Your task to perform on an android device: Search for seafood restaurants on Google Maps Image 0: 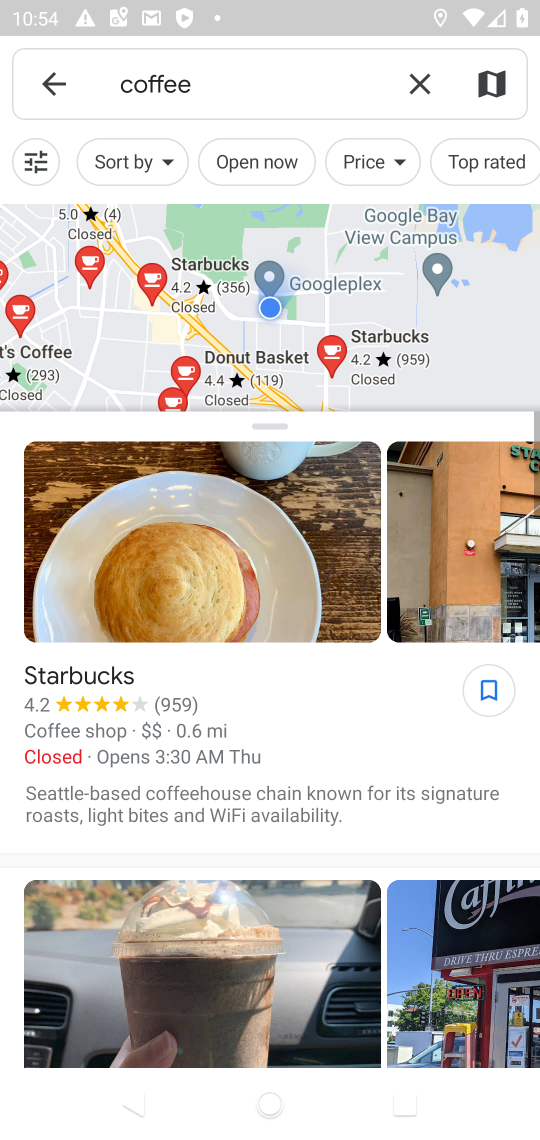
Step 0: press home button
Your task to perform on an android device: Search for seafood restaurants on Google Maps Image 1: 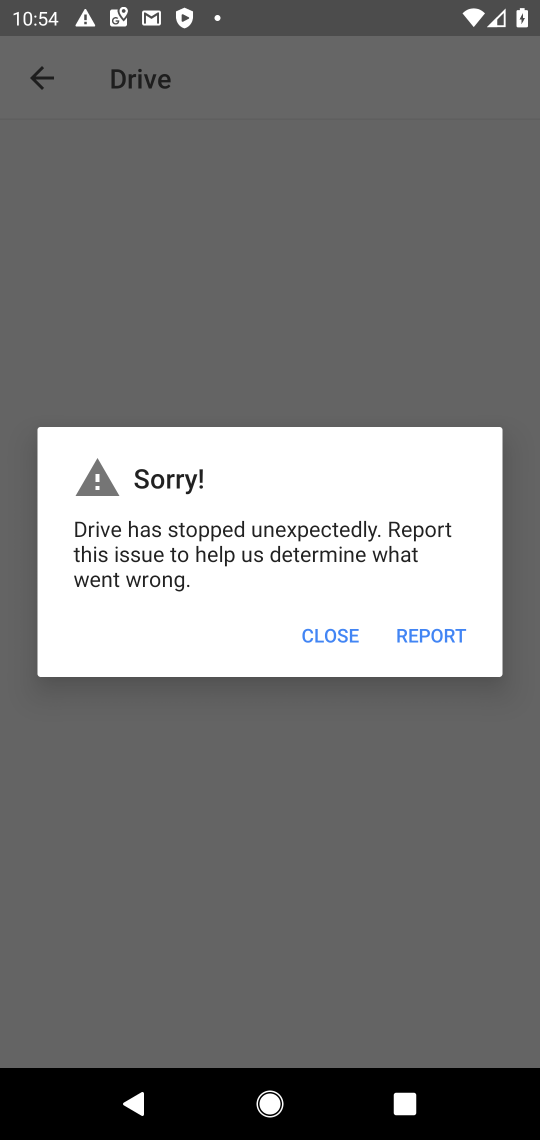
Step 1: press home button
Your task to perform on an android device: Search for seafood restaurants on Google Maps Image 2: 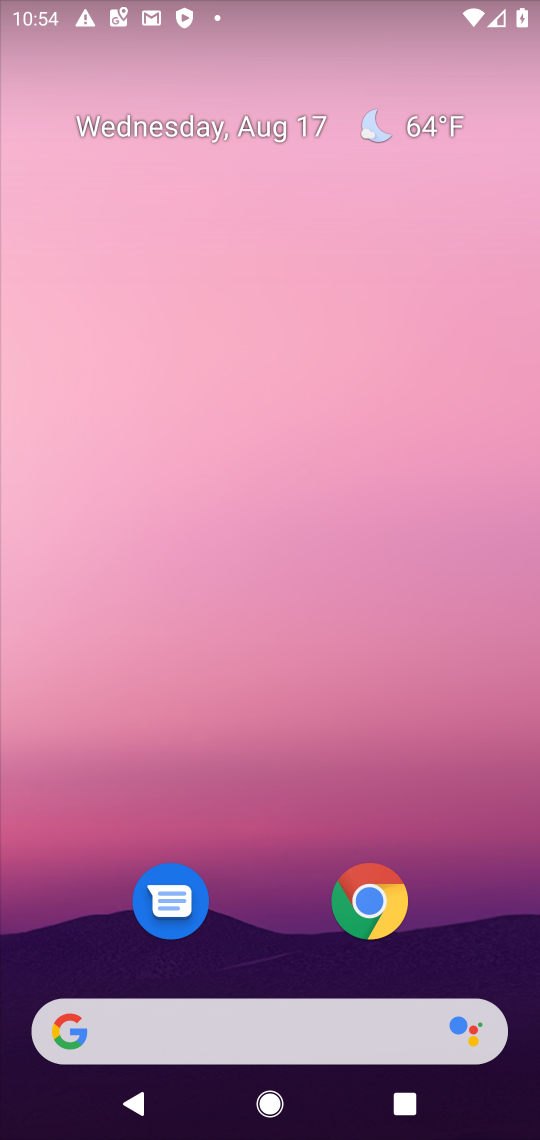
Step 2: press home button
Your task to perform on an android device: Search for seafood restaurants on Google Maps Image 3: 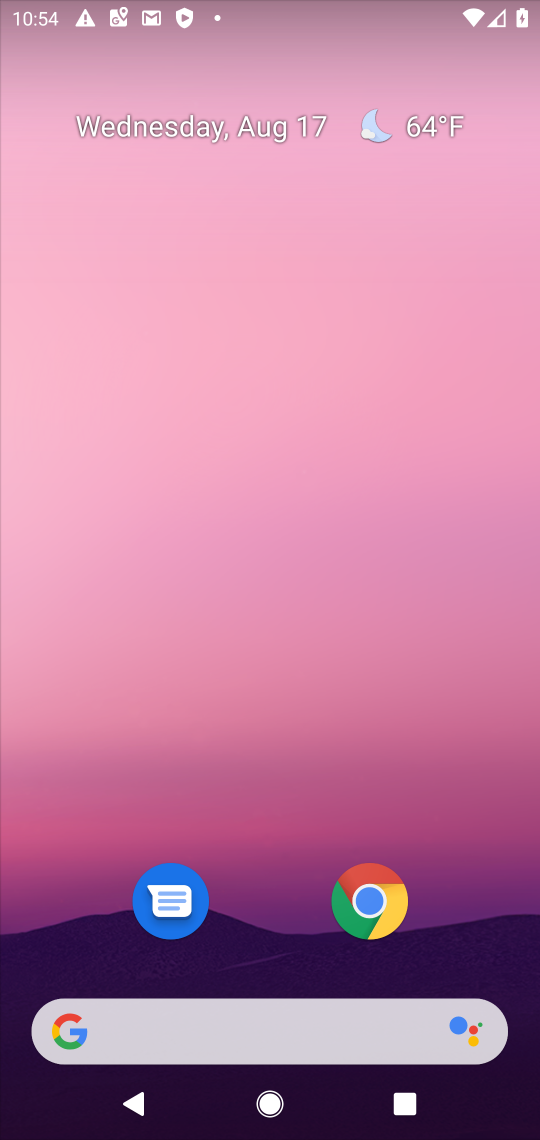
Step 3: press home button
Your task to perform on an android device: Search for seafood restaurants on Google Maps Image 4: 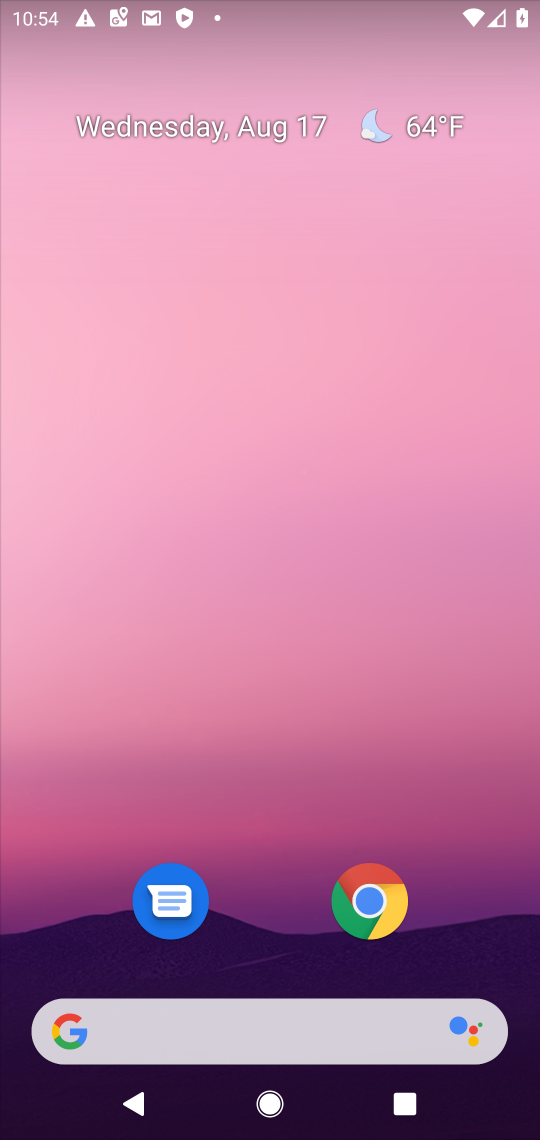
Step 4: drag from (260, 924) to (282, 132)
Your task to perform on an android device: Search for seafood restaurants on Google Maps Image 5: 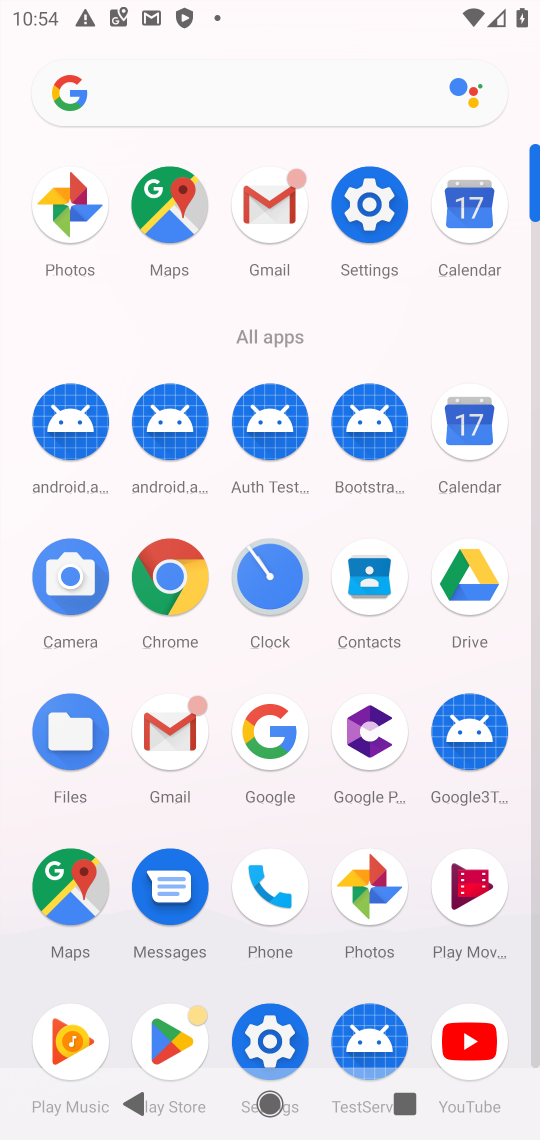
Step 5: click (163, 225)
Your task to perform on an android device: Search for seafood restaurants on Google Maps Image 6: 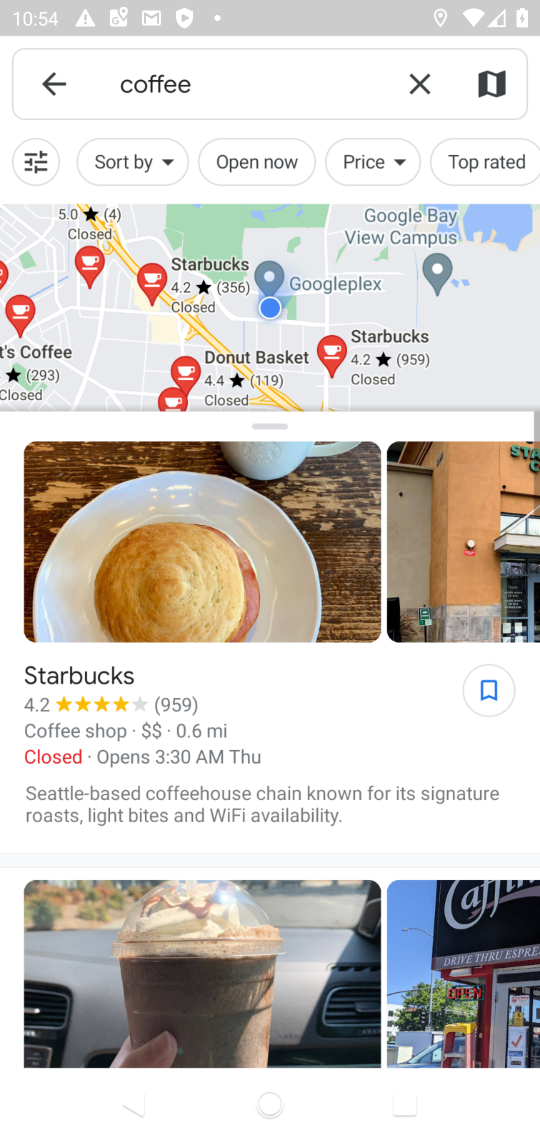
Step 6: click (235, 88)
Your task to perform on an android device: Search for seafood restaurants on Google Maps Image 7: 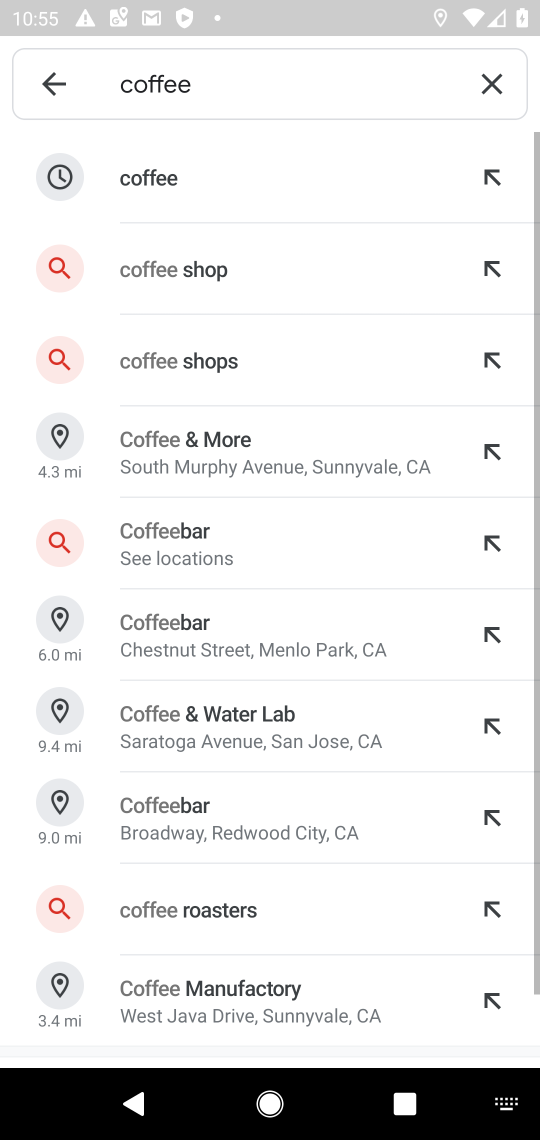
Step 7: click (496, 80)
Your task to perform on an android device: Search for seafood restaurants on Google Maps Image 8: 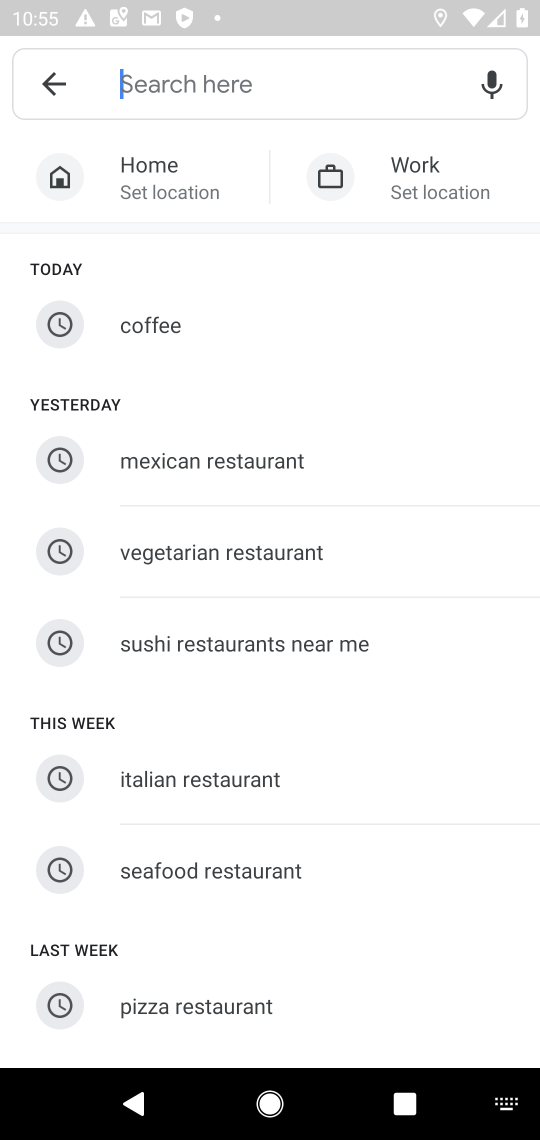
Step 8: click (186, 875)
Your task to perform on an android device: Search for seafood restaurants on Google Maps Image 9: 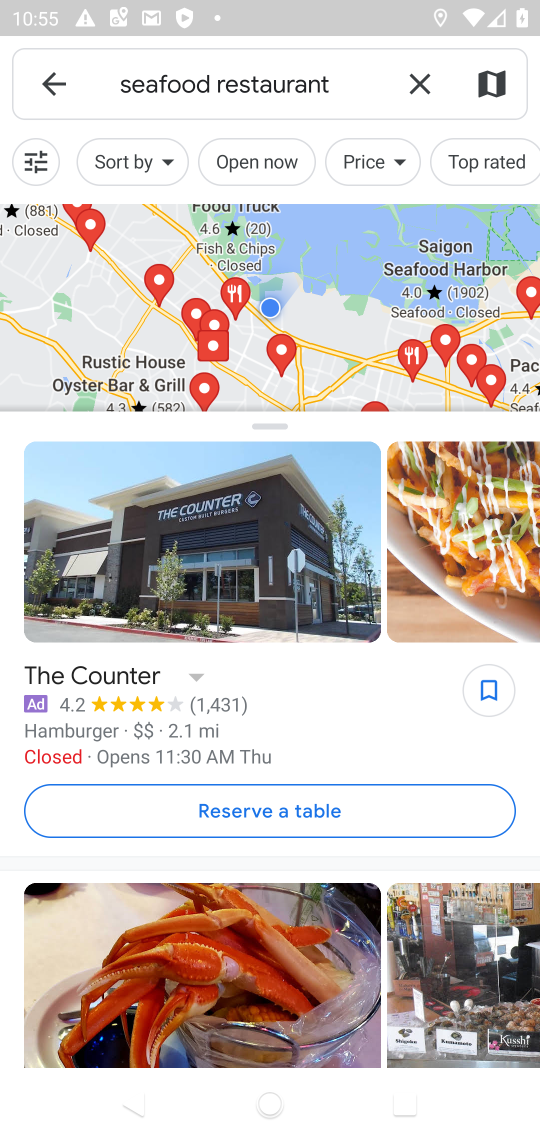
Step 9: task complete